Your task to perform on an android device: Open maps Image 0: 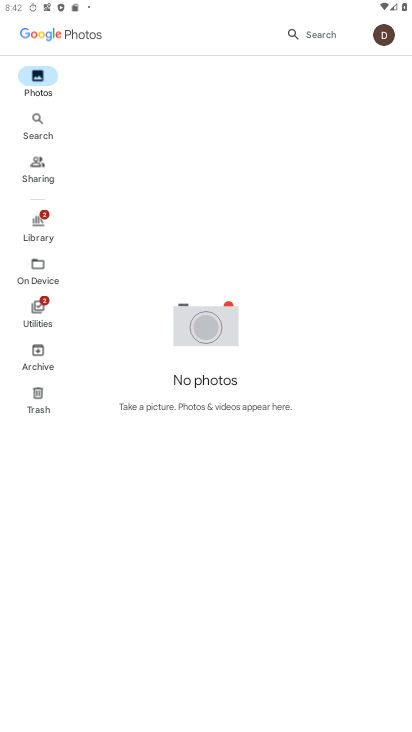
Step 0: press back button
Your task to perform on an android device: Open maps Image 1: 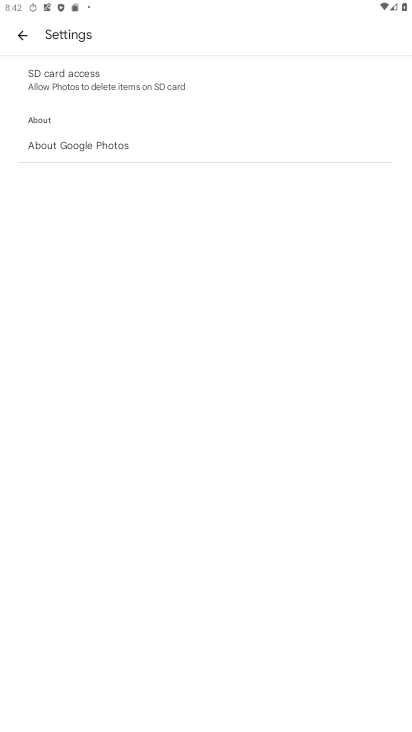
Step 1: press home button
Your task to perform on an android device: Open maps Image 2: 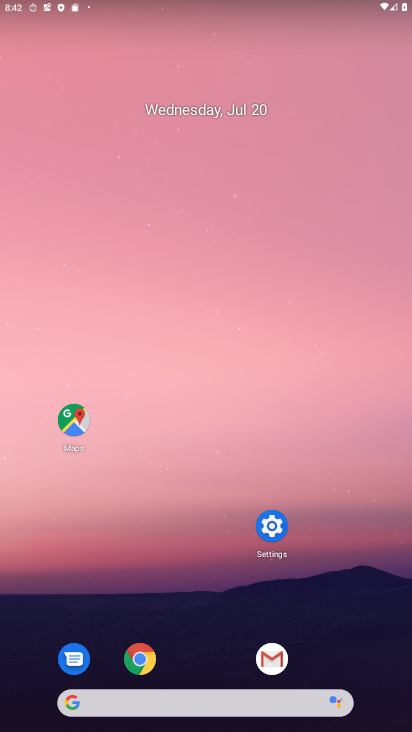
Step 2: click (77, 435)
Your task to perform on an android device: Open maps Image 3: 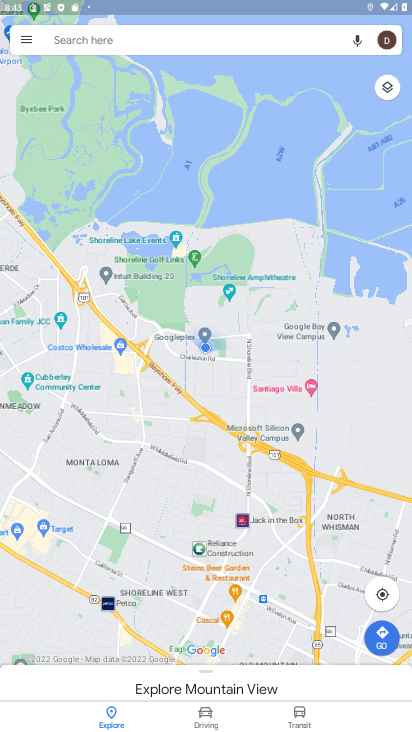
Step 3: task complete